Your task to perform on an android device: Open Google Chrome and open the bookmarks view Image 0: 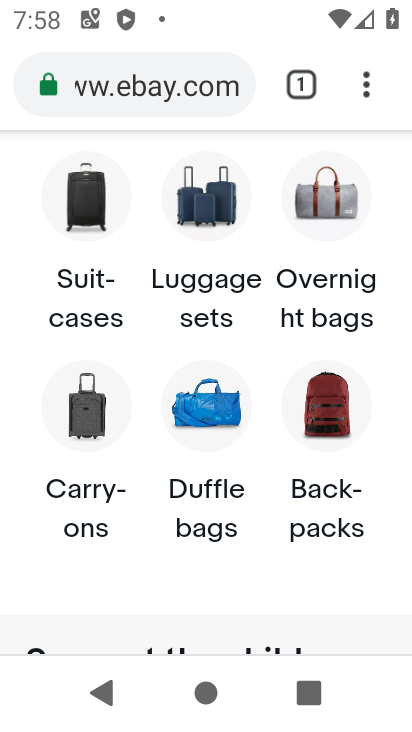
Step 0: click (368, 82)
Your task to perform on an android device: Open Google Chrome and open the bookmarks view Image 1: 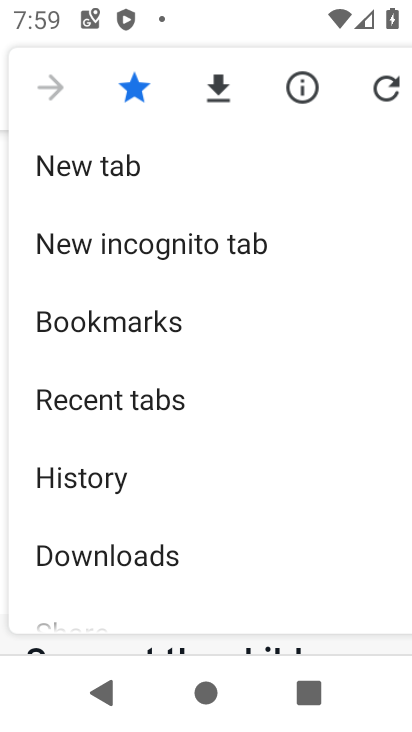
Step 1: click (201, 313)
Your task to perform on an android device: Open Google Chrome and open the bookmarks view Image 2: 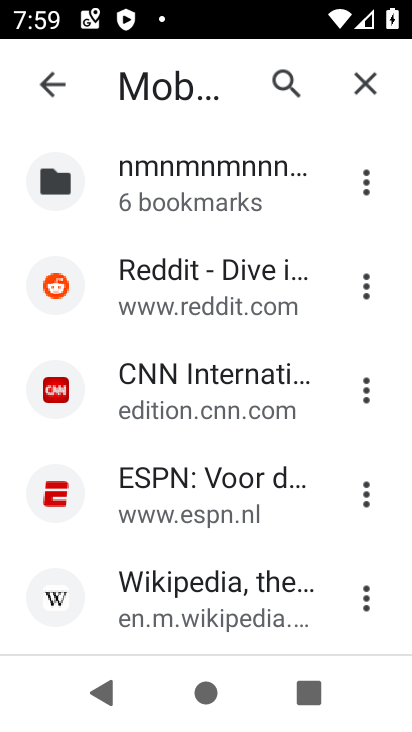
Step 2: click (193, 287)
Your task to perform on an android device: Open Google Chrome and open the bookmarks view Image 3: 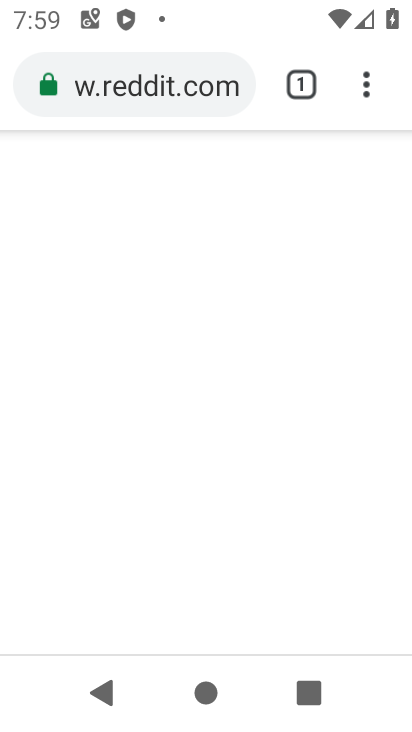
Step 3: task complete